Your task to perform on an android device: toggle priority inbox in the gmail app Image 0: 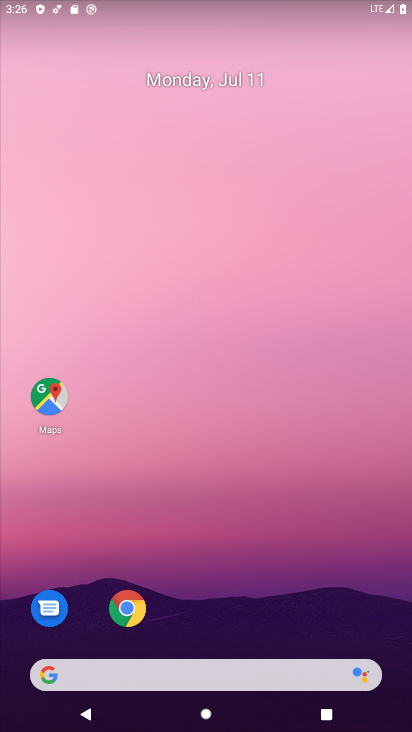
Step 0: drag from (271, 631) to (231, 46)
Your task to perform on an android device: toggle priority inbox in the gmail app Image 1: 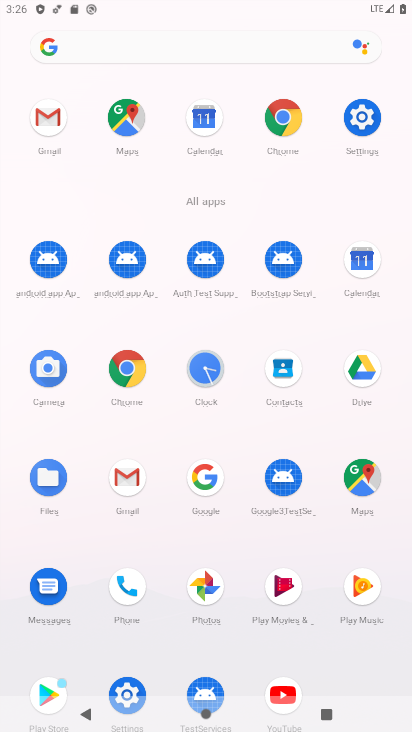
Step 1: click (46, 115)
Your task to perform on an android device: toggle priority inbox in the gmail app Image 2: 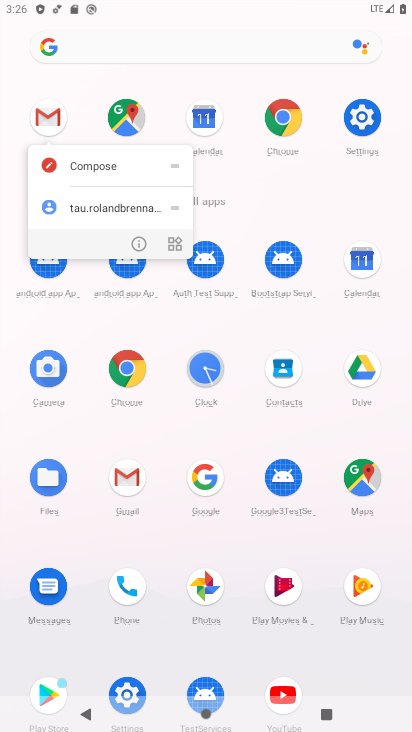
Step 2: click (46, 115)
Your task to perform on an android device: toggle priority inbox in the gmail app Image 3: 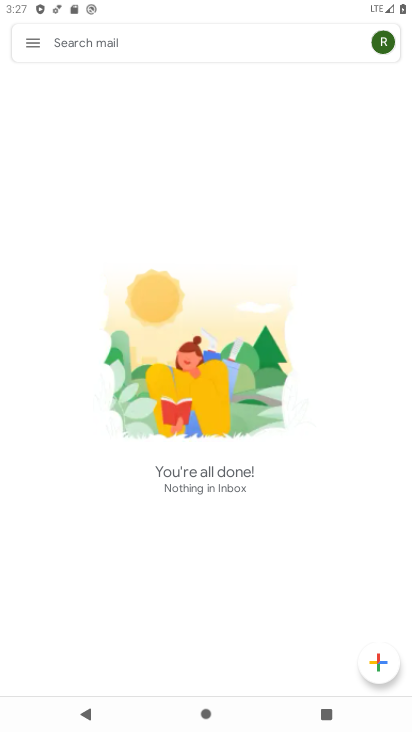
Step 3: click (32, 43)
Your task to perform on an android device: toggle priority inbox in the gmail app Image 4: 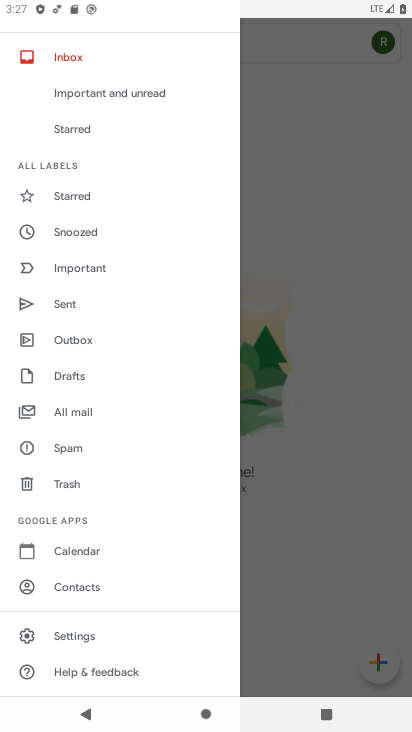
Step 4: click (87, 639)
Your task to perform on an android device: toggle priority inbox in the gmail app Image 5: 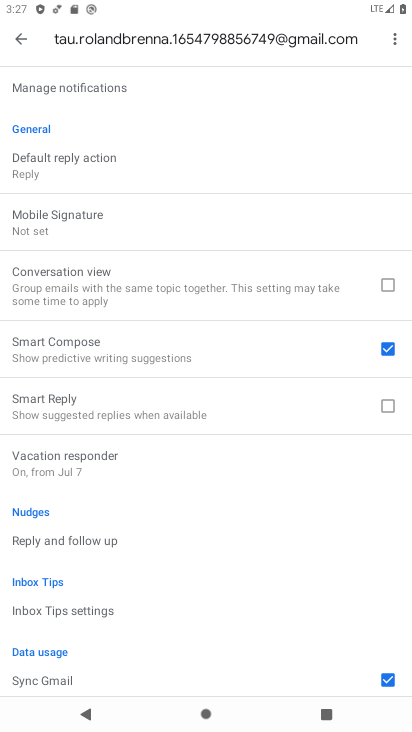
Step 5: drag from (79, 125) to (165, 520)
Your task to perform on an android device: toggle priority inbox in the gmail app Image 6: 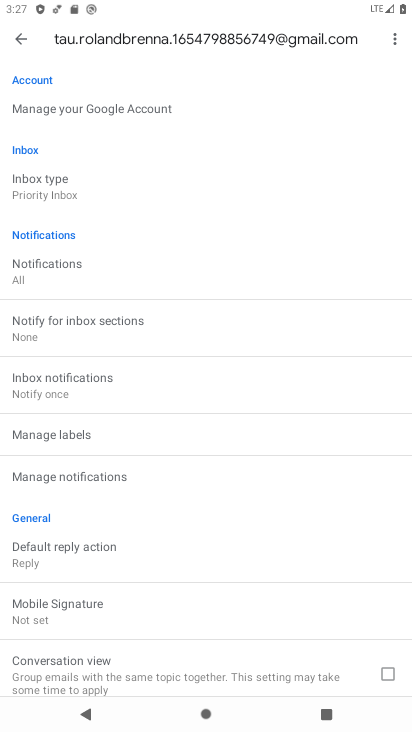
Step 6: click (50, 197)
Your task to perform on an android device: toggle priority inbox in the gmail app Image 7: 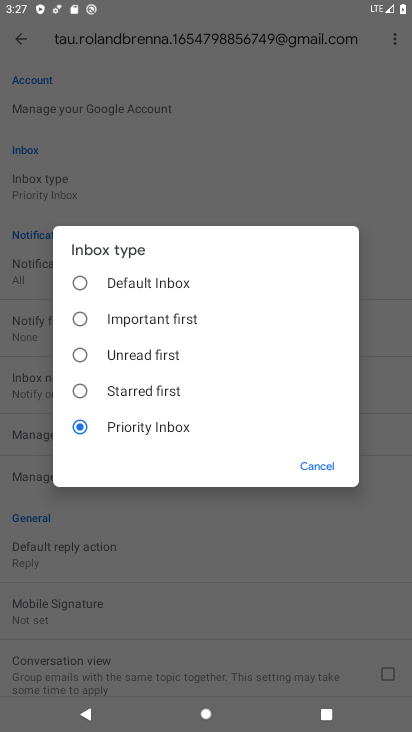
Step 7: click (81, 325)
Your task to perform on an android device: toggle priority inbox in the gmail app Image 8: 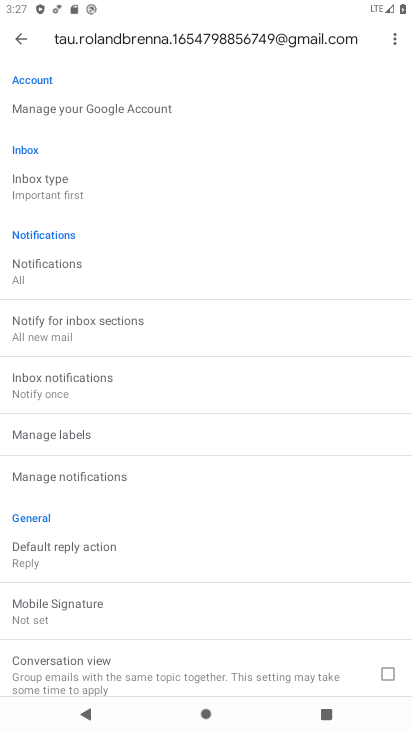
Step 8: task complete